Your task to perform on an android device: change the clock display to digital Image 0: 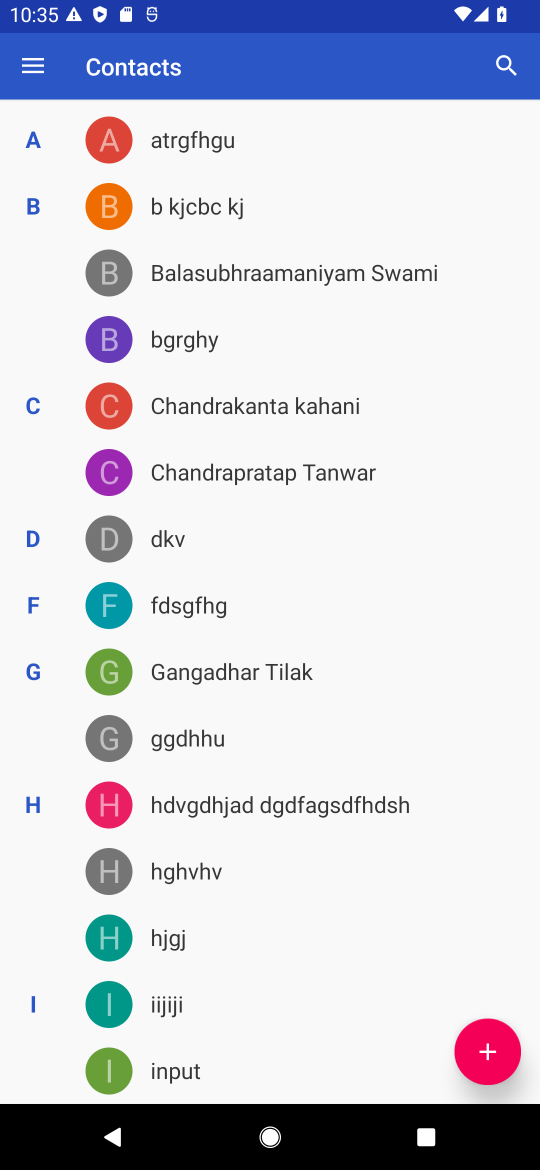
Step 0: press home button
Your task to perform on an android device: change the clock display to digital Image 1: 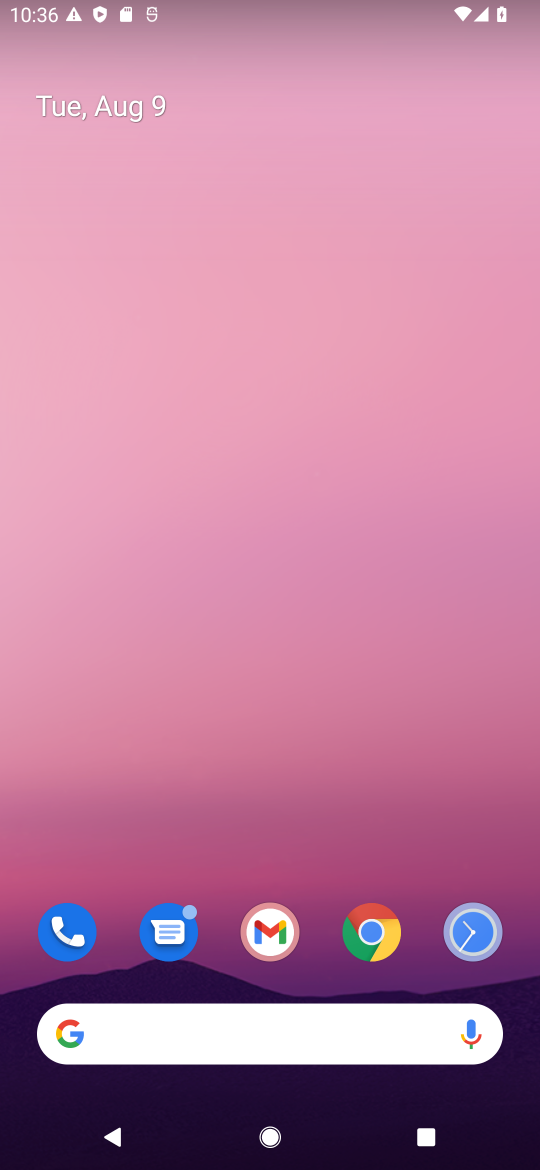
Step 1: drag from (234, 971) to (296, 264)
Your task to perform on an android device: change the clock display to digital Image 2: 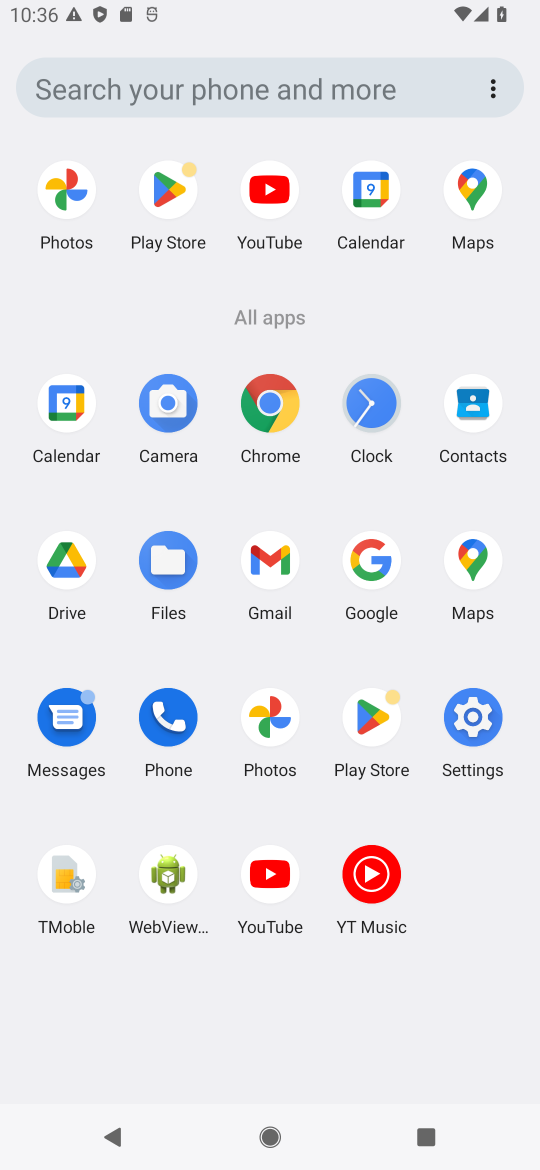
Step 2: click (376, 422)
Your task to perform on an android device: change the clock display to digital Image 3: 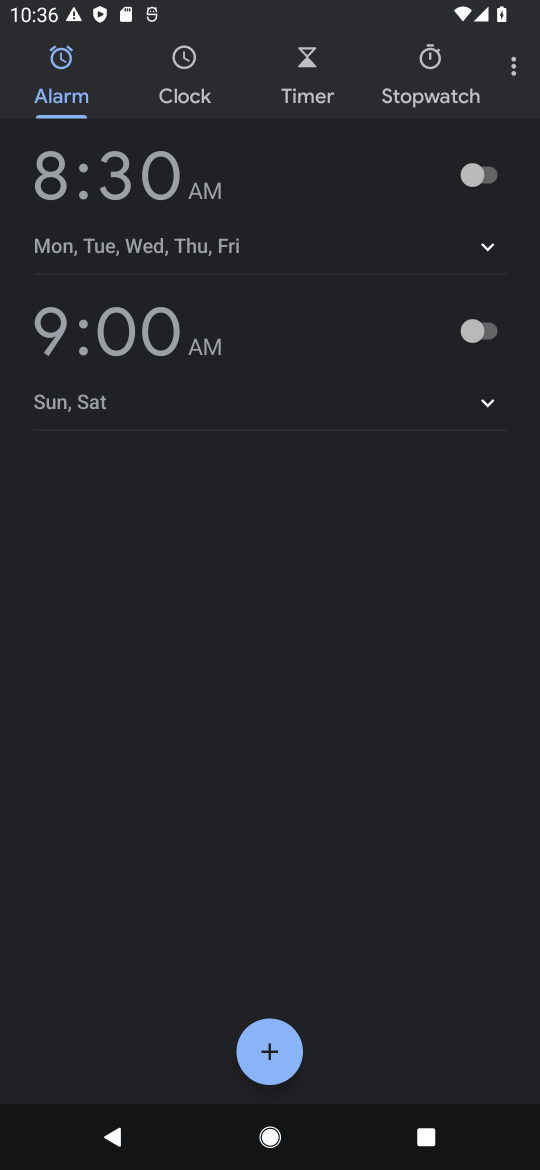
Step 3: click (511, 64)
Your task to perform on an android device: change the clock display to digital Image 4: 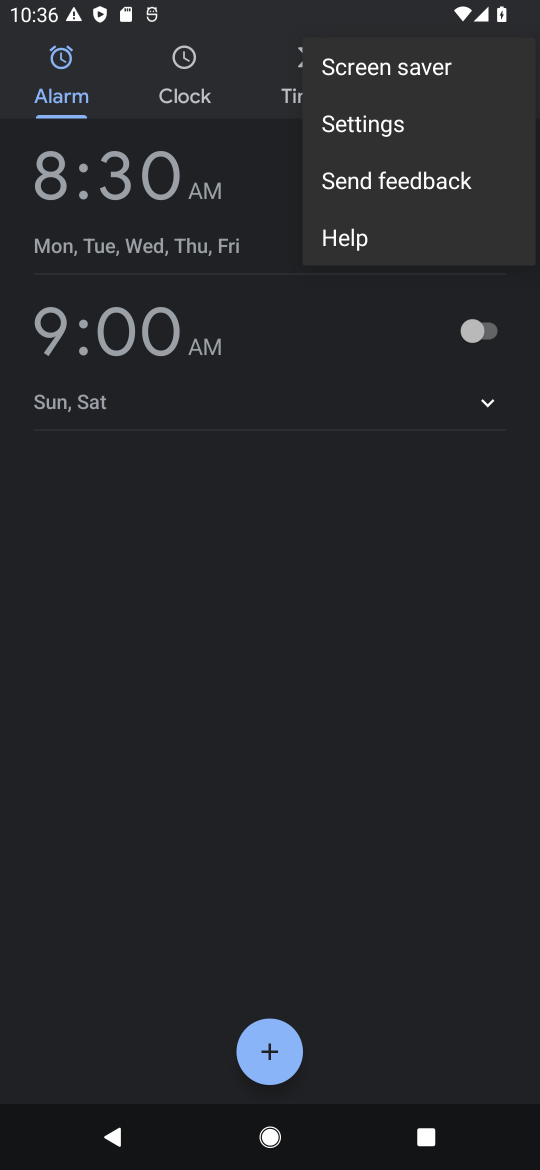
Step 4: click (379, 122)
Your task to perform on an android device: change the clock display to digital Image 5: 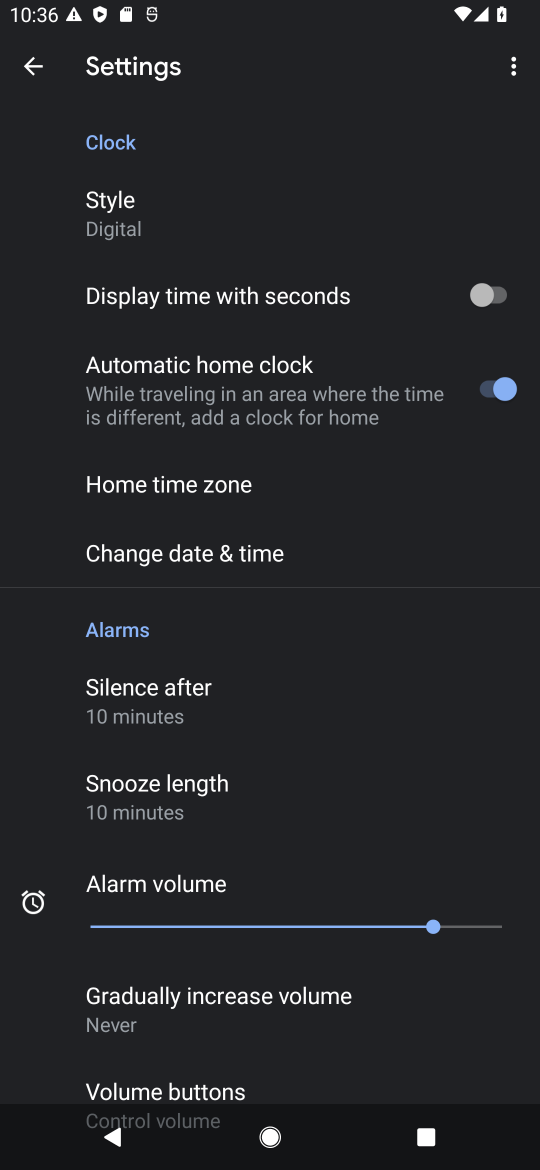
Step 5: click (116, 220)
Your task to perform on an android device: change the clock display to digital Image 6: 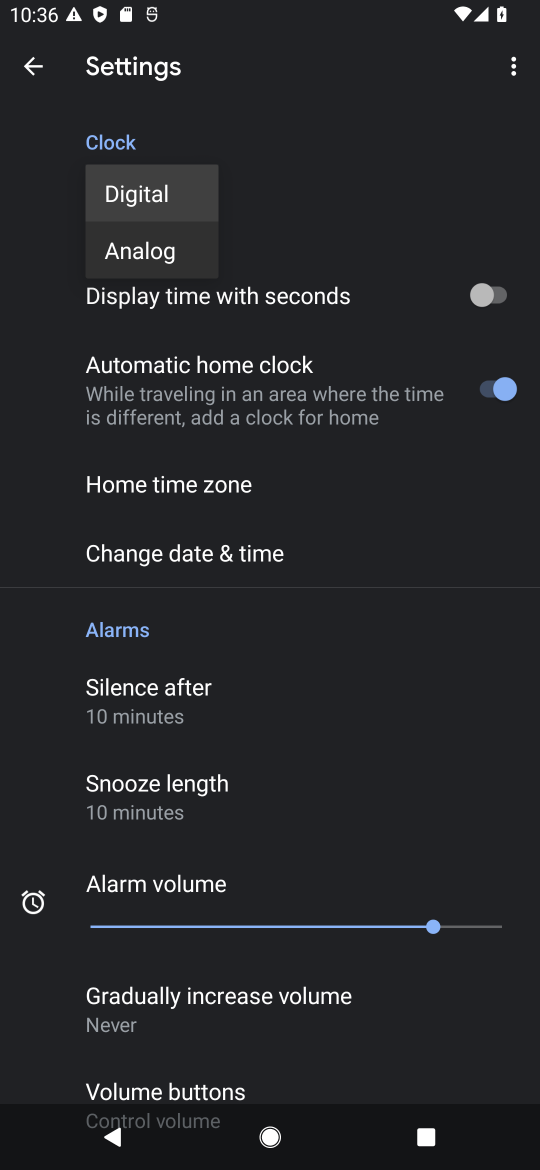
Step 6: task complete